Your task to perform on an android device: open app "Google Duo" Image 0: 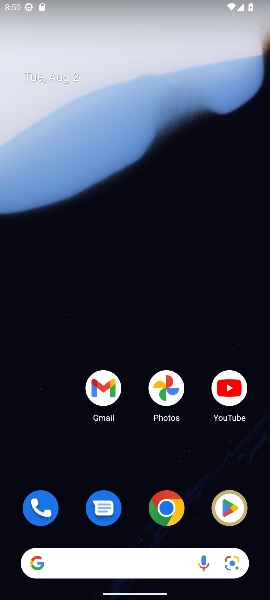
Step 0: drag from (169, 317) to (210, 45)
Your task to perform on an android device: open app "Google Duo" Image 1: 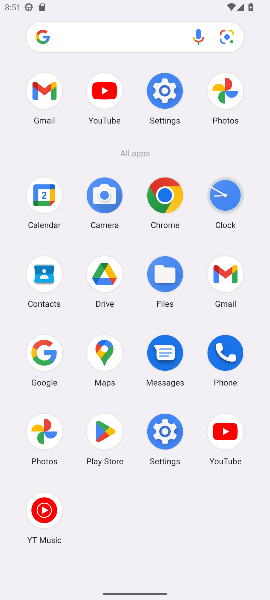
Step 1: click (109, 440)
Your task to perform on an android device: open app "Google Duo" Image 2: 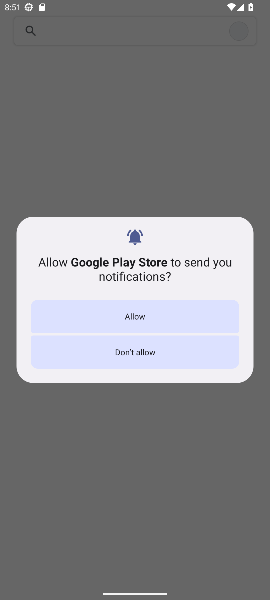
Step 2: press home button
Your task to perform on an android device: open app "Google Duo" Image 3: 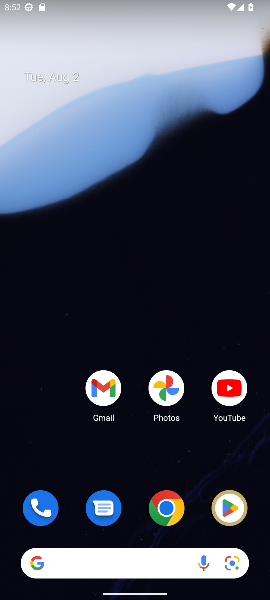
Step 3: drag from (104, 456) to (138, 83)
Your task to perform on an android device: open app "Google Duo" Image 4: 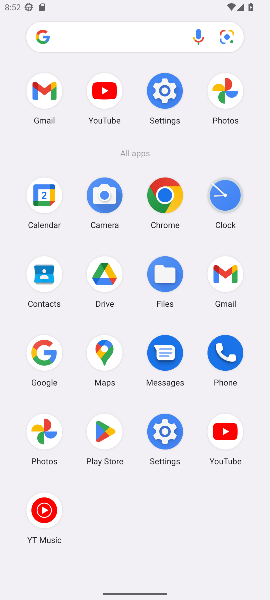
Step 4: click (104, 427)
Your task to perform on an android device: open app "Google Duo" Image 5: 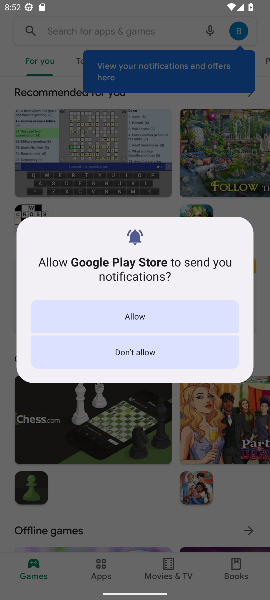
Step 5: click (145, 315)
Your task to perform on an android device: open app "Google Duo" Image 6: 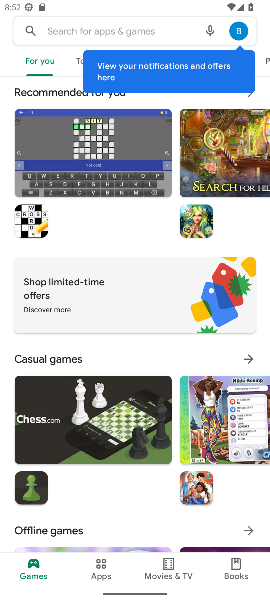
Step 6: click (106, 32)
Your task to perform on an android device: open app "Google Duo" Image 7: 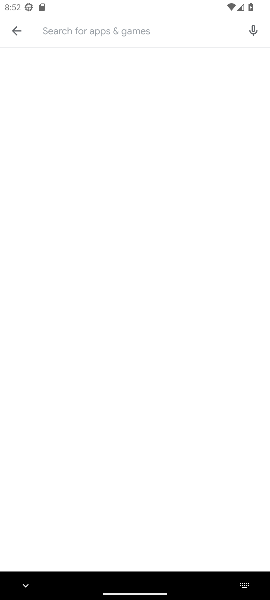
Step 7: type "Google Duo"
Your task to perform on an android device: open app "Google Duo" Image 8: 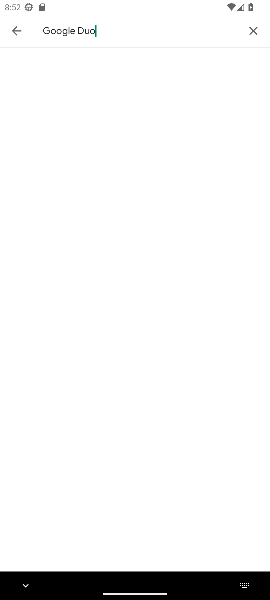
Step 8: type ""
Your task to perform on an android device: open app "Google Duo" Image 9: 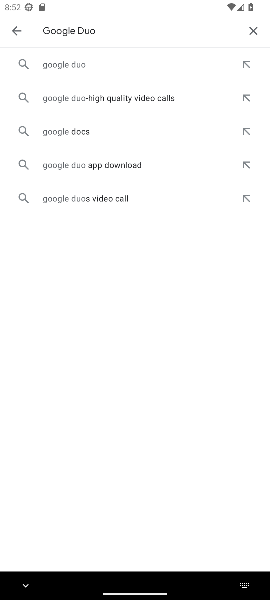
Step 9: click (101, 66)
Your task to perform on an android device: open app "Google Duo" Image 10: 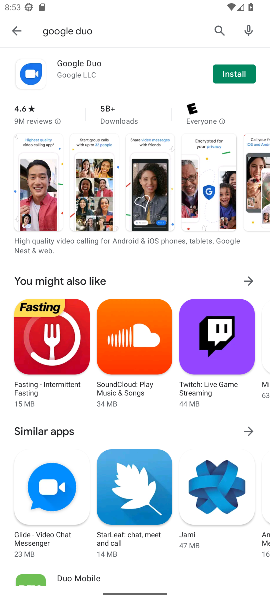
Step 10: task complete